Your task to perform on an android device: toggle improve location accuracy Image 0: 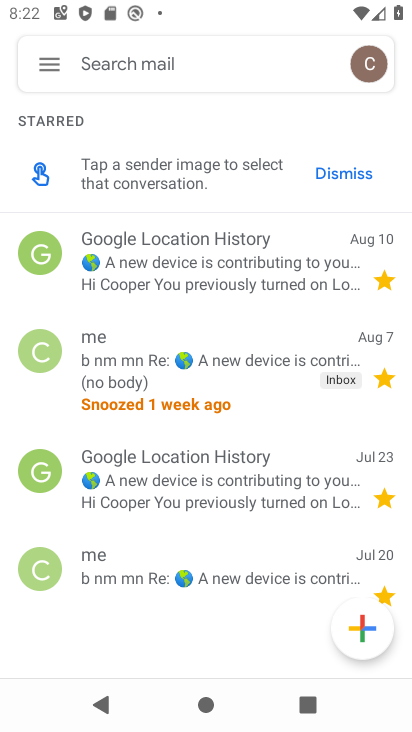
Step 0: press home button
Your task to perform on an android device: toggle improve location accuracy Image 1: 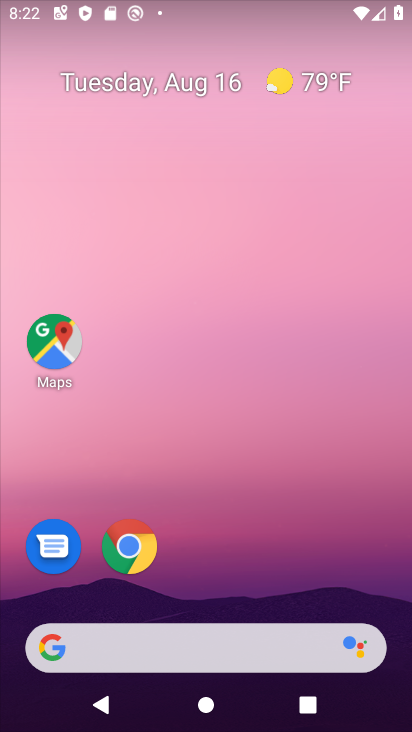
Step 1: drag from (180, 594) to (216, 138)
Your task to perform on an android device: toggle improve location accuracy Image 2: 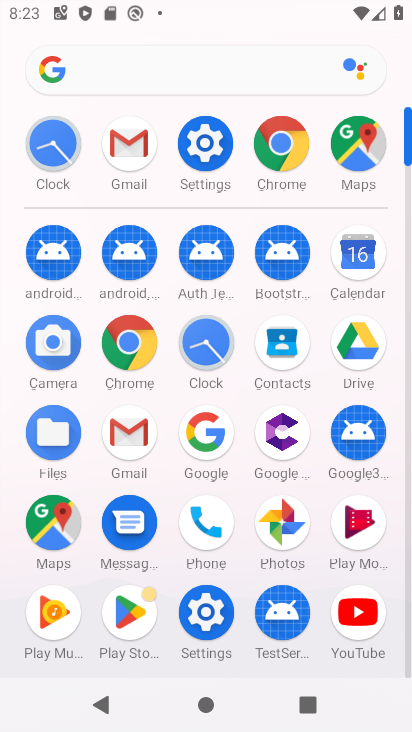
Step 2: click (200, 144)
Your task to perform on an android device: toggle improve location accuracy Image 3: 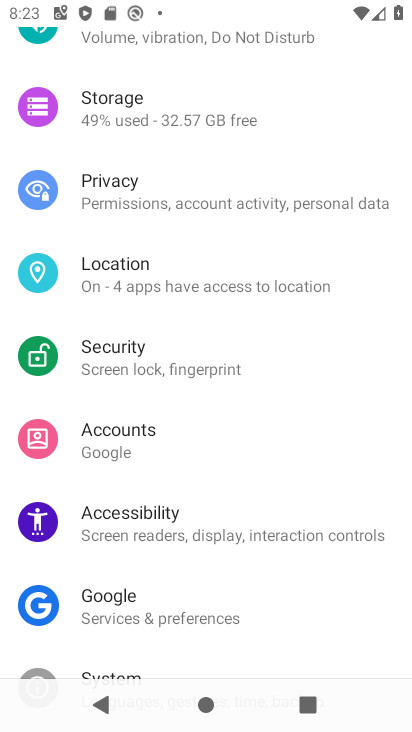
Step 3: drag from (170, 645) to (169, 414)
Your task to perform on an android device: toggle improve location accuracy Image 4: 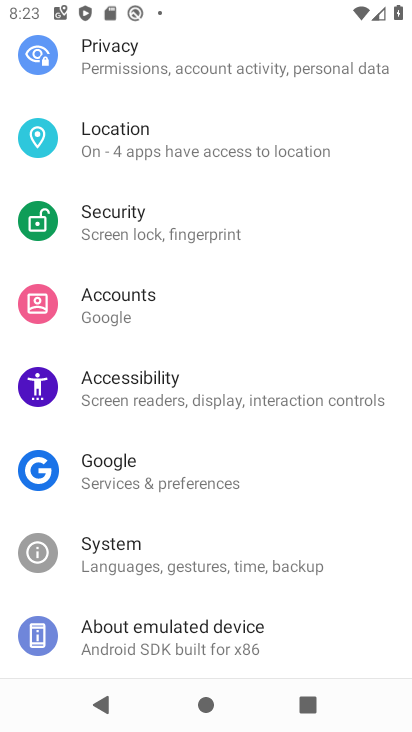
Step 4: click (163, 146)
Your task to perform on an android device: toggle improve location accuracy Image 5: 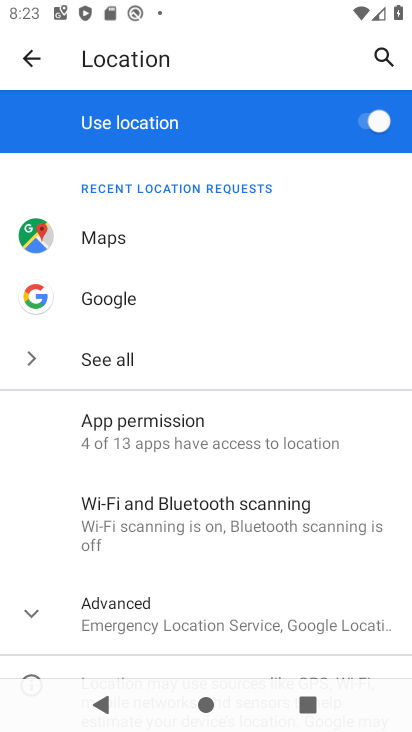
Step 5: drag from (188, 560) to (252, 319)
Your task to perform on an android device: toggle improve location accuracy Image 6: 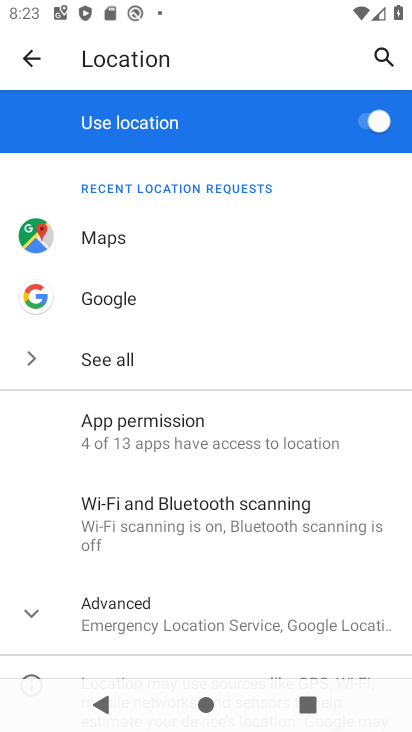
Step 6: click (114, 606)
Your task to perform on an android device: toggle improve location accuracy Image 7: 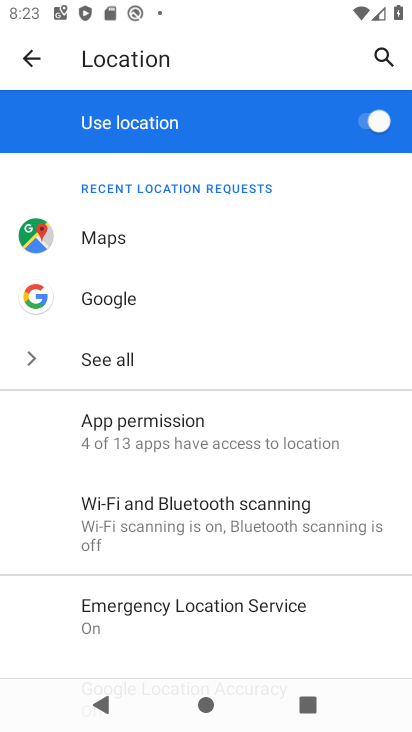
Step 7: click (189, 248)
Your task to perform on an android device: toggle improve location accuracy Image 8: 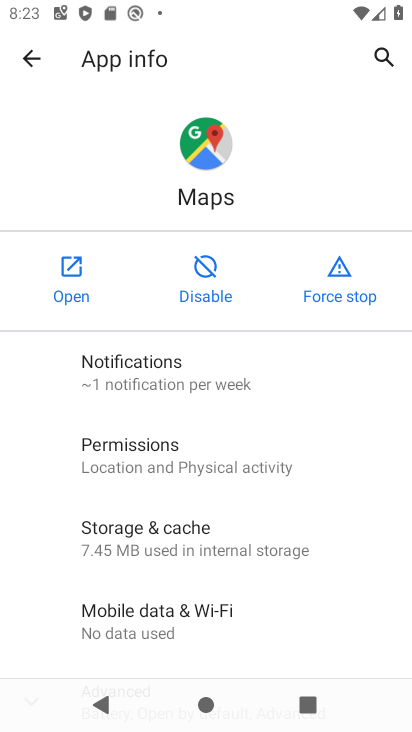
Step 8: click (32, 59)
Your task to perform on an android device: toggle improve location accuracy Image 9: 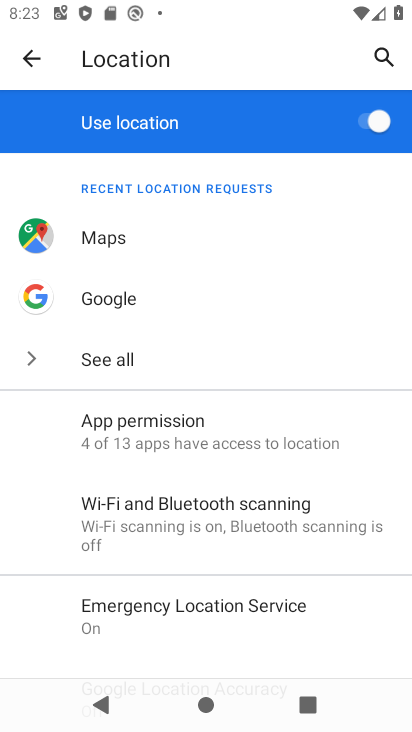
Step 9: drag from (181, 611) to (224, 271)
Your task to perform on an android device: toggle improve location accuracy Image 10: 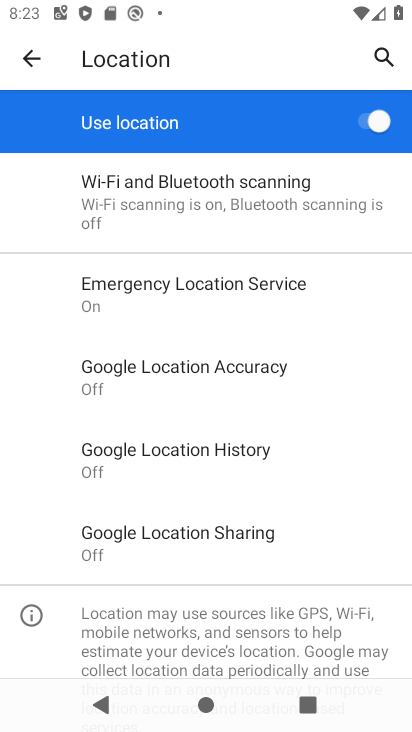
Step 10: click (165, 373)
Your task to perform on an android device: toggle improve location accuracy Image 11: 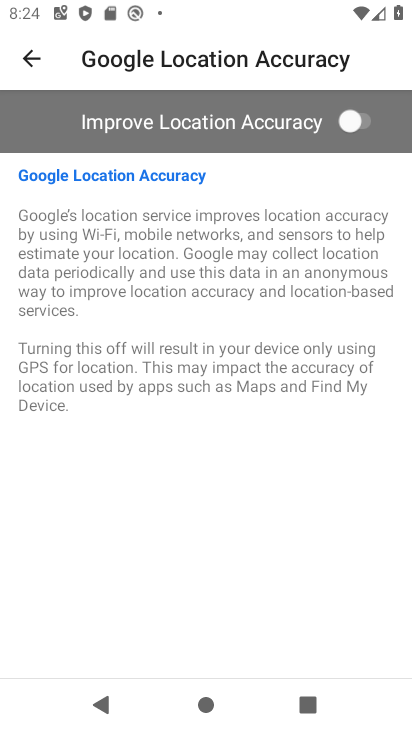
Step 11: click (371, 130)
Your task to perform on an android device: toggle improve location accuracy Image 12: 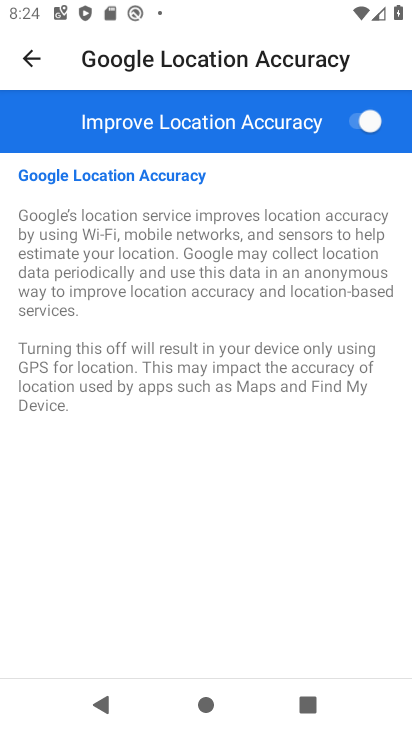
Step 12: task complete